Your task to perform on an android device: Go to Android settings Image 0: 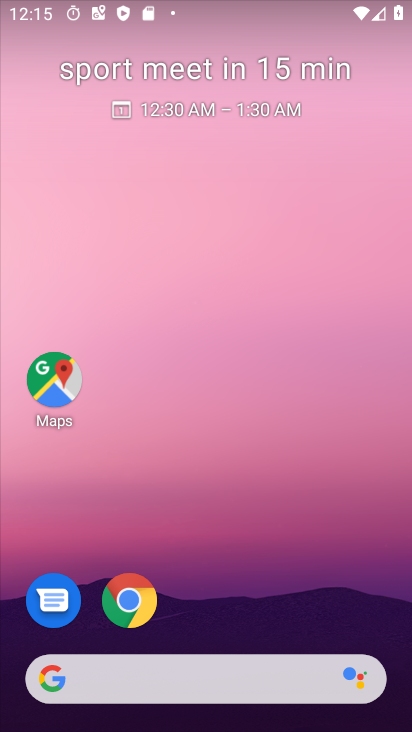
Step 0: drag from (216, 462) to (237, 48)
Your task to perform on an android device: Go to Android settings Image 1: 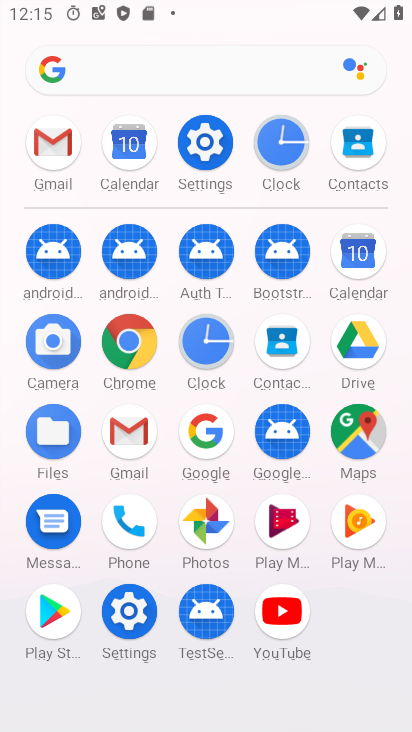
Step 1: click (200, 152)
Your task to perform on an android device: Go to Android settings Image 2: 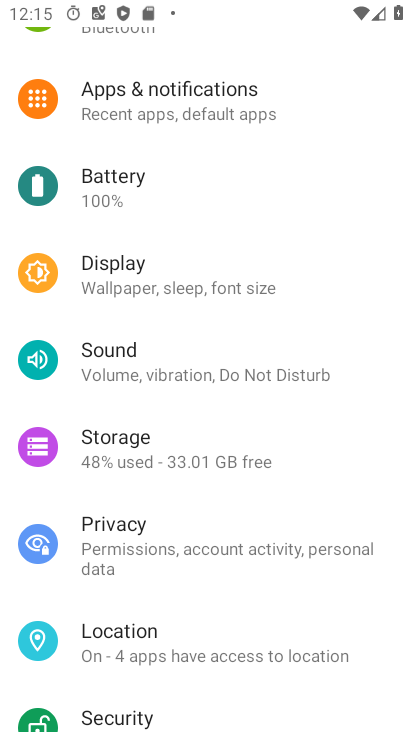
Step 2: task complete